Your task to perform on an android device: Open the Play Movies app and select the watchlist tab. Image 0: 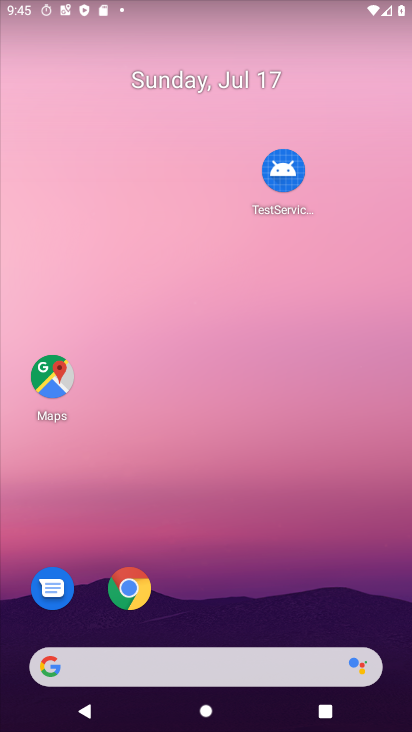
Step 0: drag from (223, 627) to (316, 30)
Your task to perform on an android device: Open the Play Movies app and select the watchlist tab. Image 1: 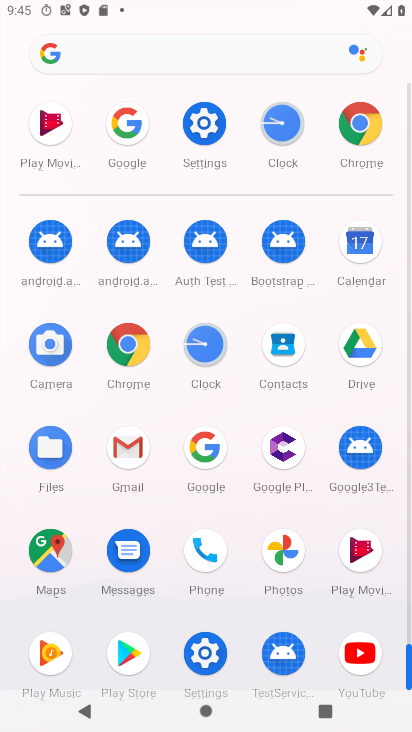
Step 1: click (271, 349)
Your task to perform on an android device: Open the Play Movies app and select the watchlist tab. Image 2: 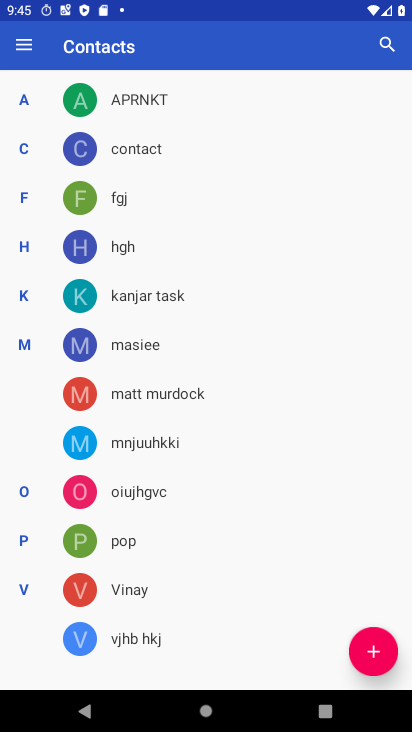
Step 2: press home button
Your task to perform on an android device: Open the Play Movies app and select the watchlist tab. Image 3: 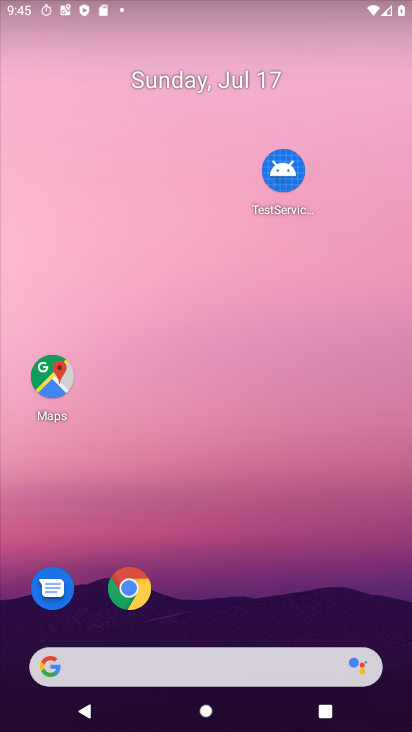
Step 3: drag from (230, 622) to (319, 91)
Your task to perform on an android device: Open the Play Movies app and select the watchlist tab. Image 4: 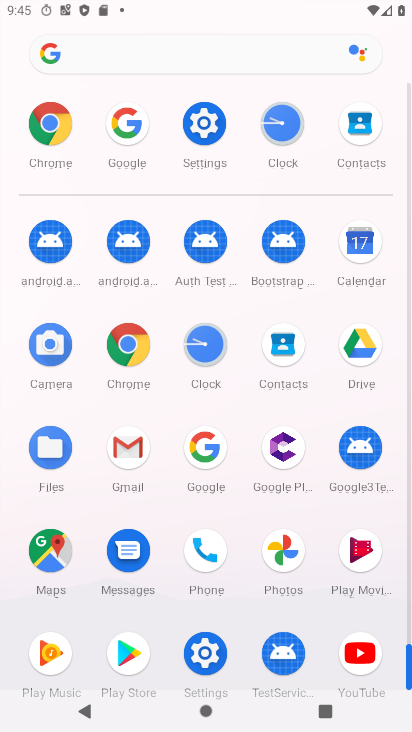
Step 4: click (360, 568)
Your task to perform on an android device: Open the Play Movies app and select the watchlist tab. Image 5: 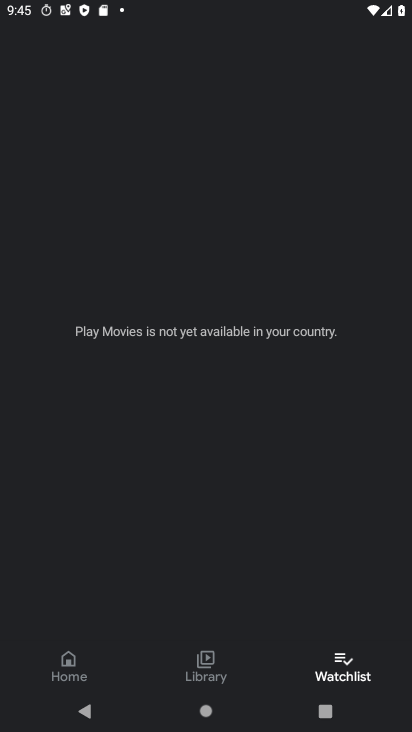
Step 5: task complete